Your task to perform on an android device: Go to CNN.com Image 0: 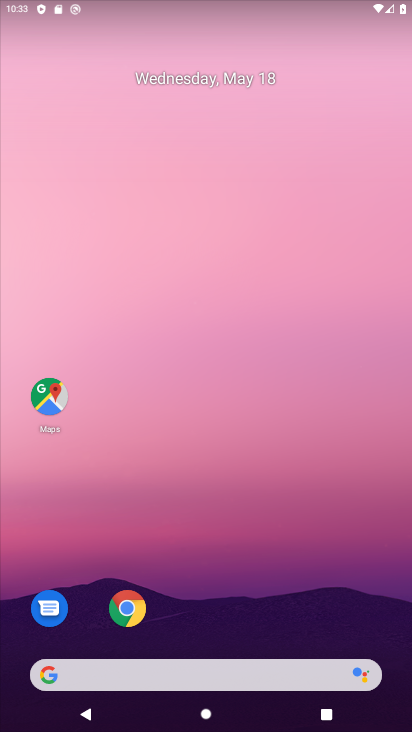
Step 0: press home button
Your task to perform on an android device: Go to CNN.com Image 1: 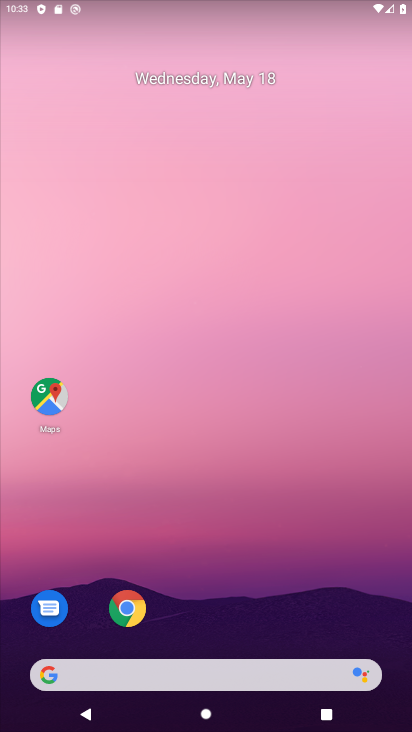
Step 1: click (113, 604)
Your task to perform on an android device: Go to CNN.com Image 2: 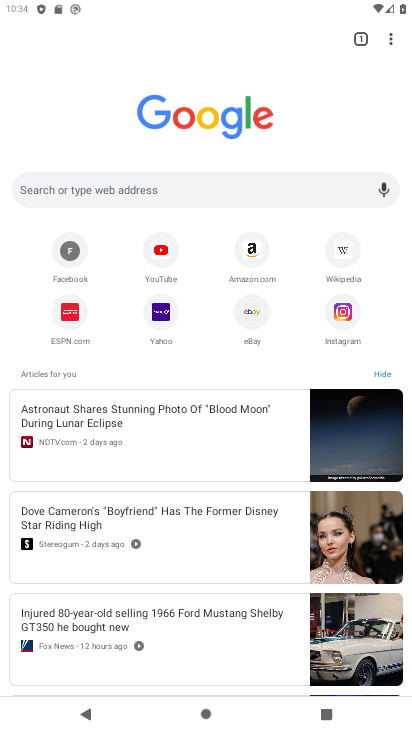
Step 2: click (164, 189)
Your task to perform on an android device: Go to CNN.com Image 3: 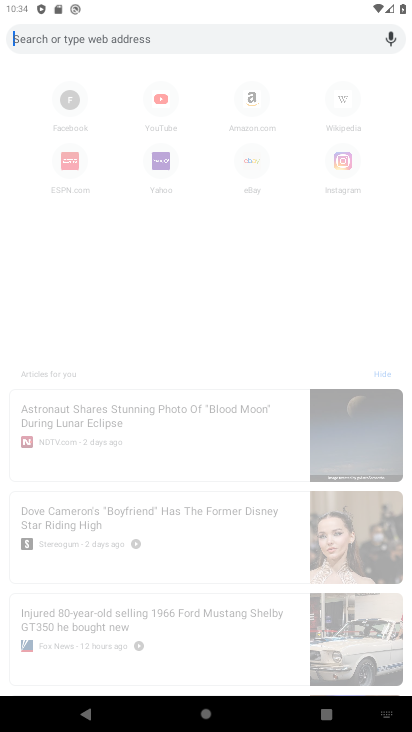
Step 3: type " CNN.com"
Your task to perform on an android device: Go to CNN.com Image 4: 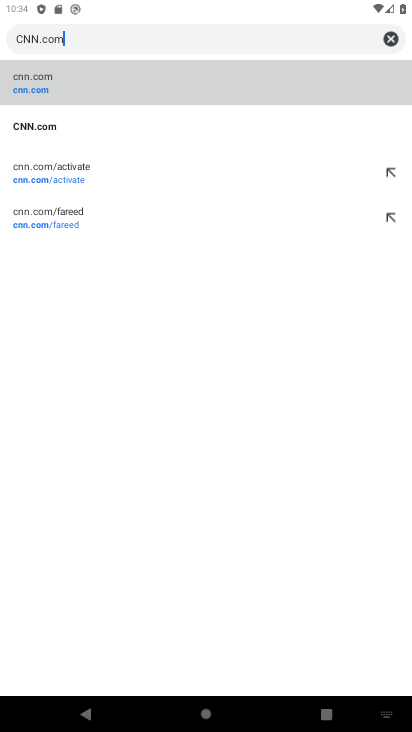
Step 4: click (103, 77)
Your task to perform on an android device: Go to CNN.com Image 5: 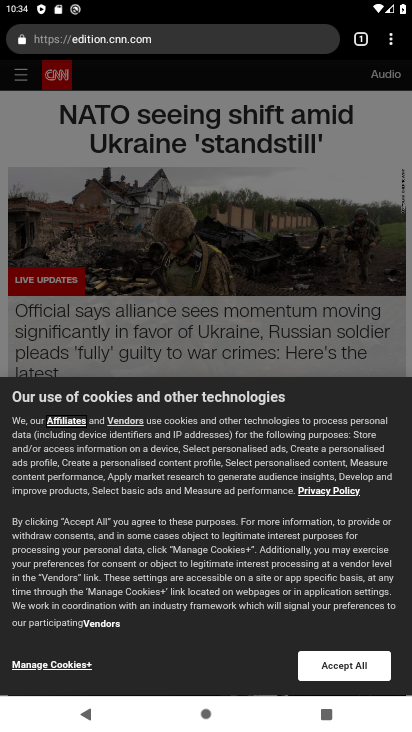
Step 5: task complete